Your task to perform on an android device: Go to internet settings Image 0: 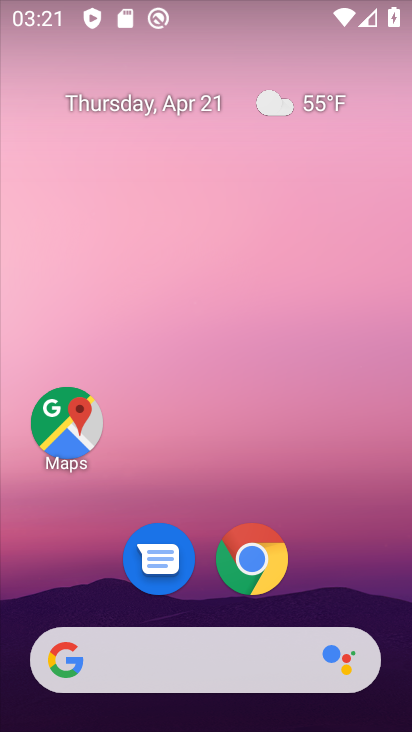
Step 0: drag from (340, 11) to (338, 74)
Your task to perform on an android device: Go to internet settings Image 1: 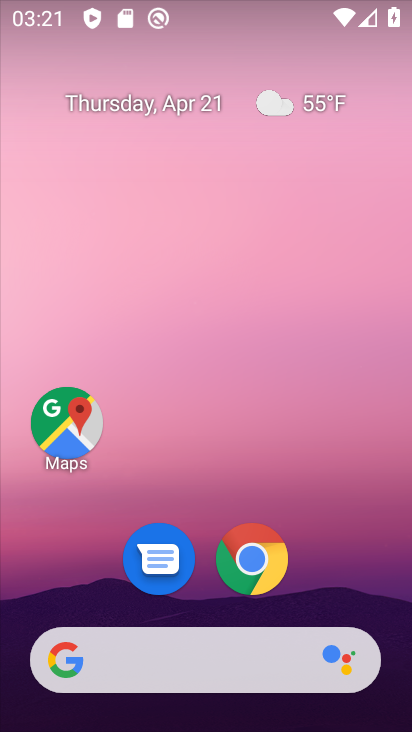
Step 1: drag from (367, 564) to (349, 2)
Your task to perform on an android device: Go to internet settings Image 2: 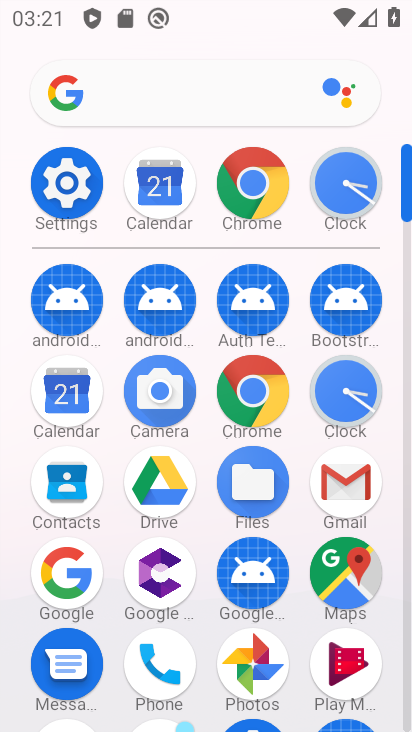
Step 2: click (64, 204)
Your task to perform on an android device: Go to internet settings Image 3: 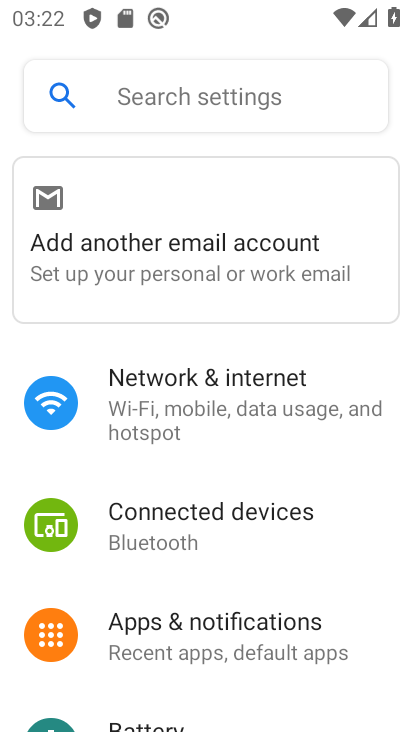
Step 3: click (232, 409)
Your task to perform on an android device: Go to internet settings Image 4: 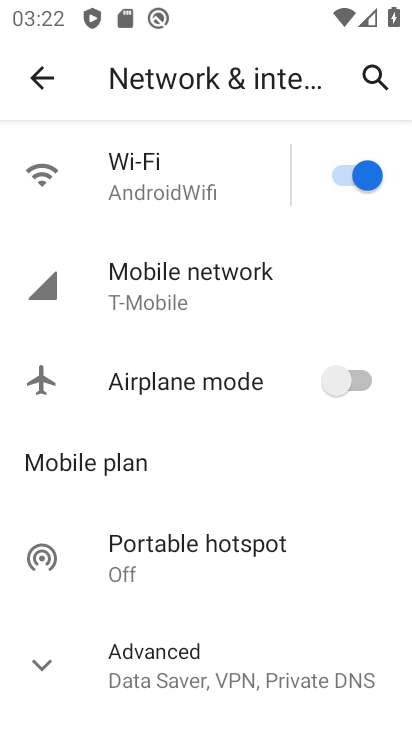
Step 4: task complete